Your task to perform on an android device: turn off sleep mode Image 0: 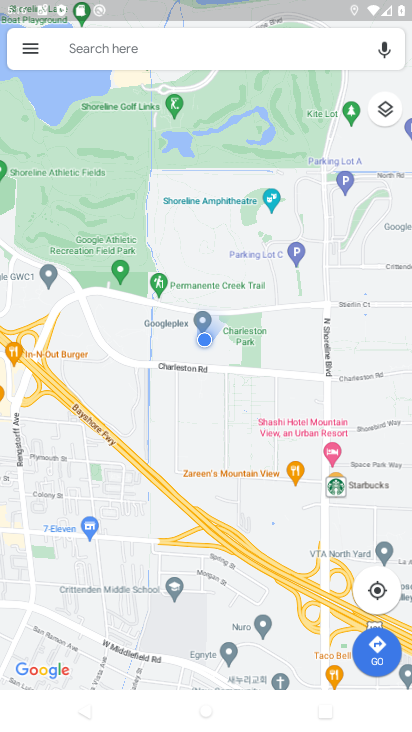
Step 0: press back button
Your task to perform on an android device: turn off sleep mode Image 1: 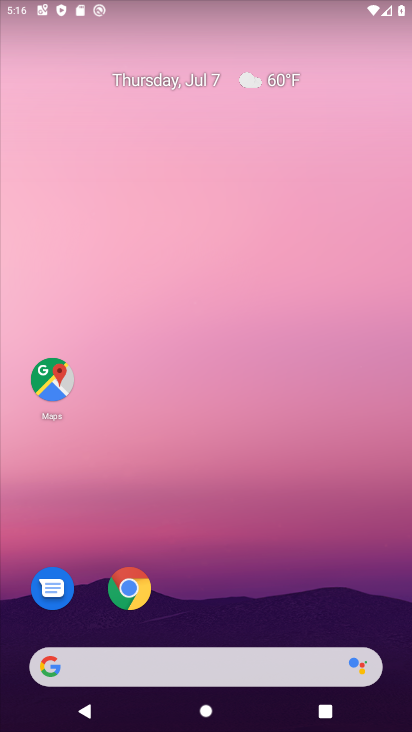
Step 1: drag from (202, 590) to (221, 14)
Your task to perform on an android device: turn off sleep mode Image 2: 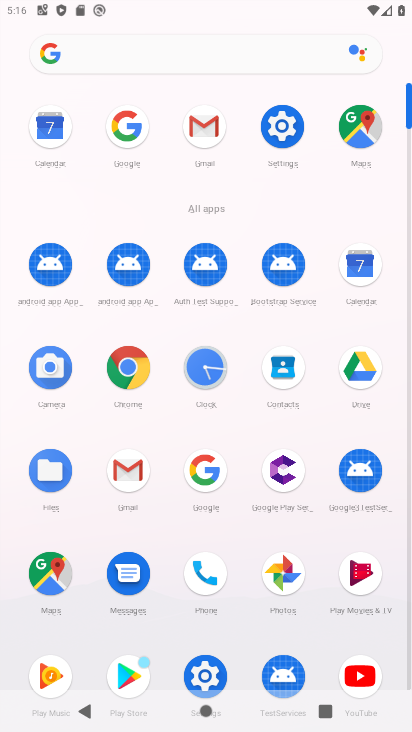
Step 2: click (278, 130)
Your task to perform on an android device: turn off sleep mode Image 3: 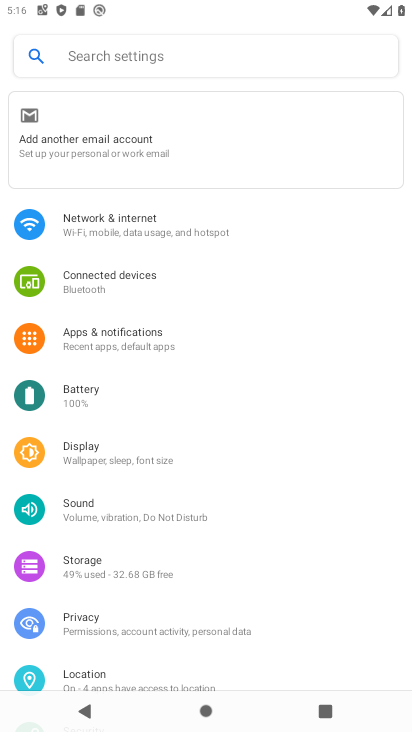
Step 3: click (108, 56)
Your task to perform on an android device: turn off sleep mode Image 4: 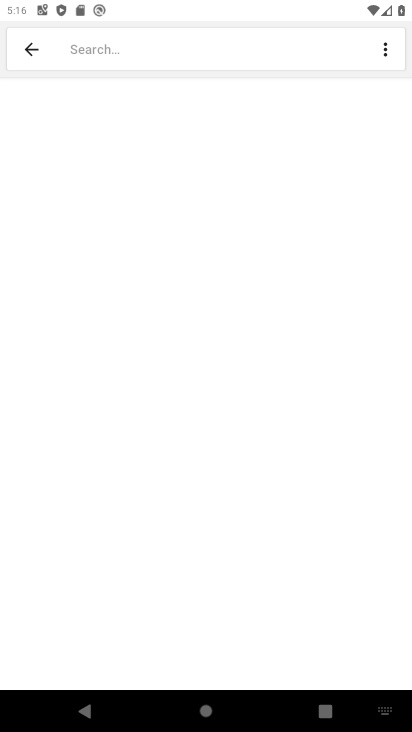
Step 4: type "sleep mode"
Your task to perform on an android device: turn off sleep mode Image 5: 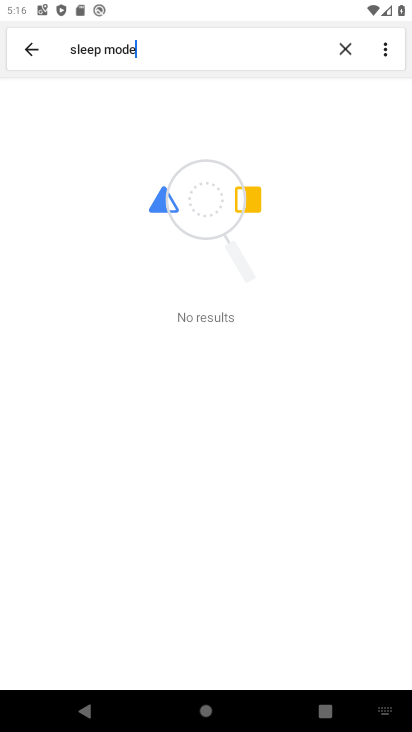
Step 5: task complete